Your task to perform on an android device: turn on location history Image 0: 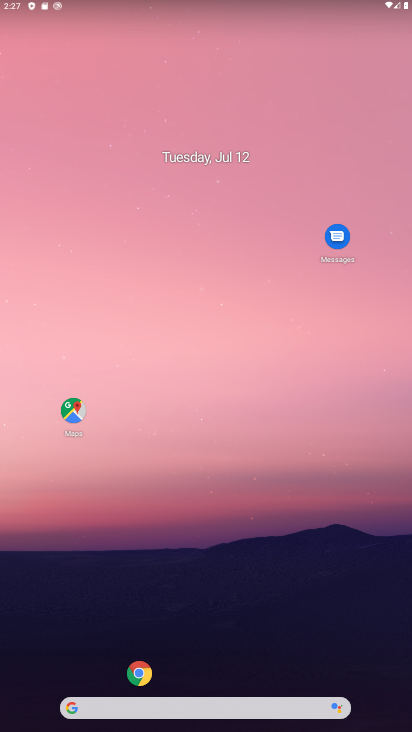
Step 0: drag from (61, 636) to (200, 230)
Your task to perform on an android device: turn on location history Image 1: 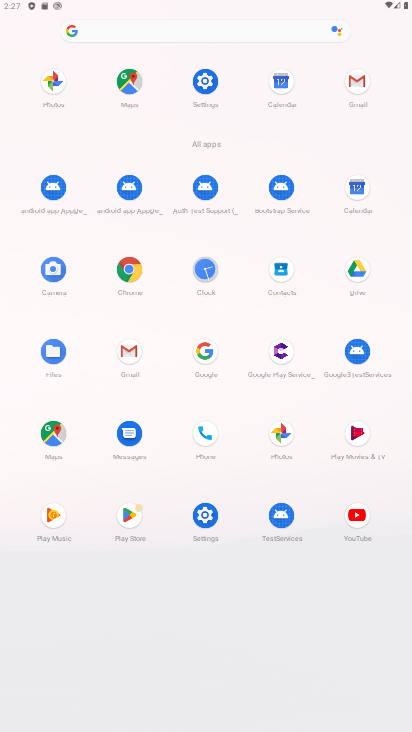
Step 1: click (220, 518)
Your task to perform on an android device: turn on location history Image 2: 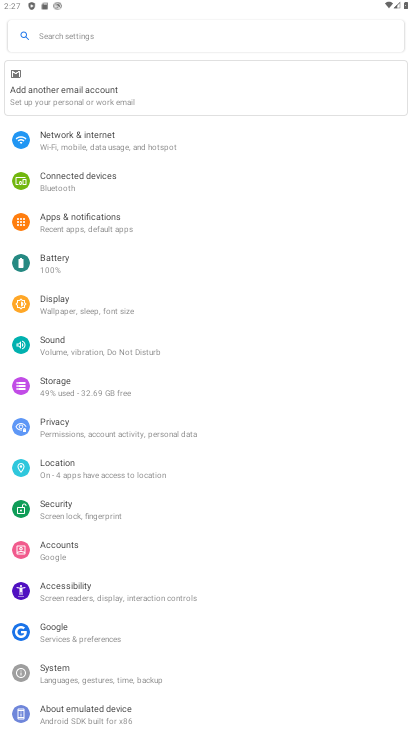
Step 2: click (97, 465)
Your task to perform on an android device: turn on location history Image 3: 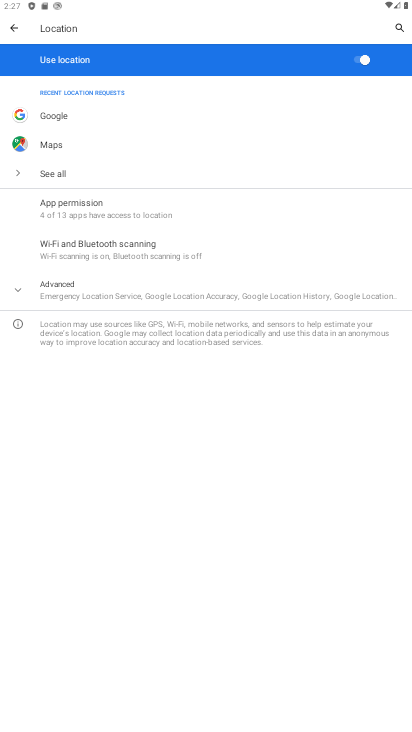
Step 3: click (77, 288)
Your task to perform on an android device: turn on location history Image 4: 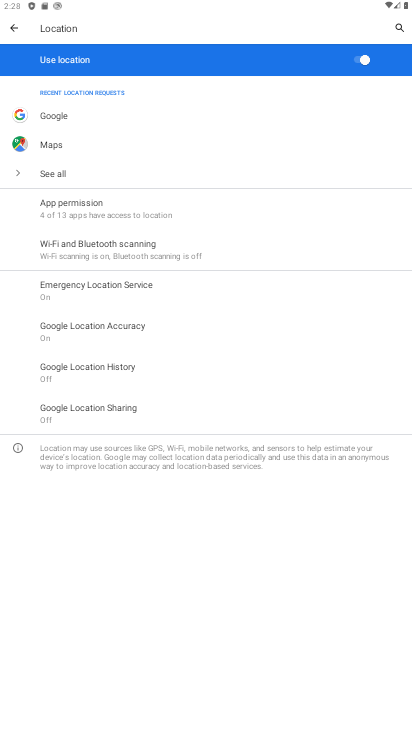
Step 4: click (85, 366)
Your task to perform on an android device: turn on location history Image 5: 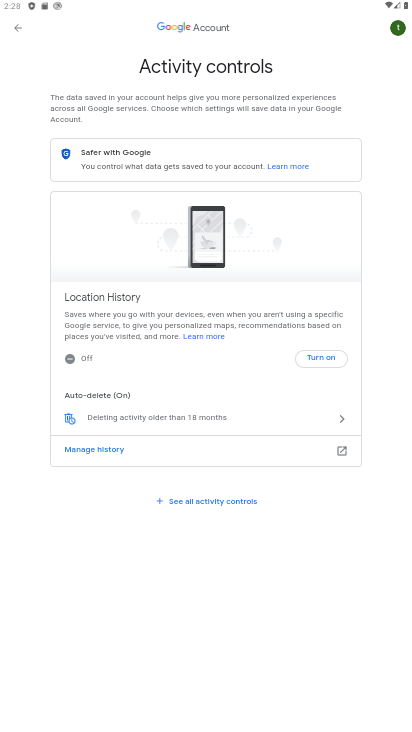
Step 5: click (319, 362)
Your task to perform on an android device: turn on location history Image 6: 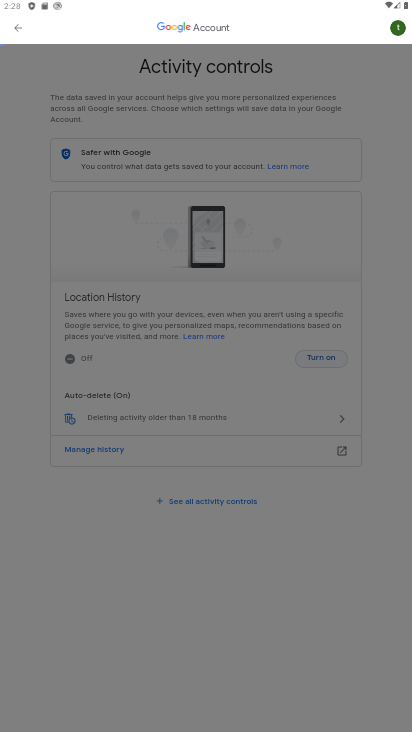
Step 6: click (321, 357)
Your task to perform on an android device: turn on location history Image 7: 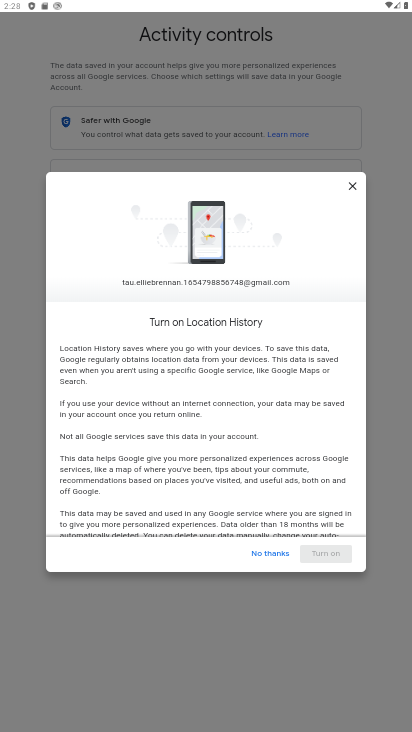
Step 7: task complete